Your task to perform on an android device: open chrome and create a bookmark for the current page Image 0: 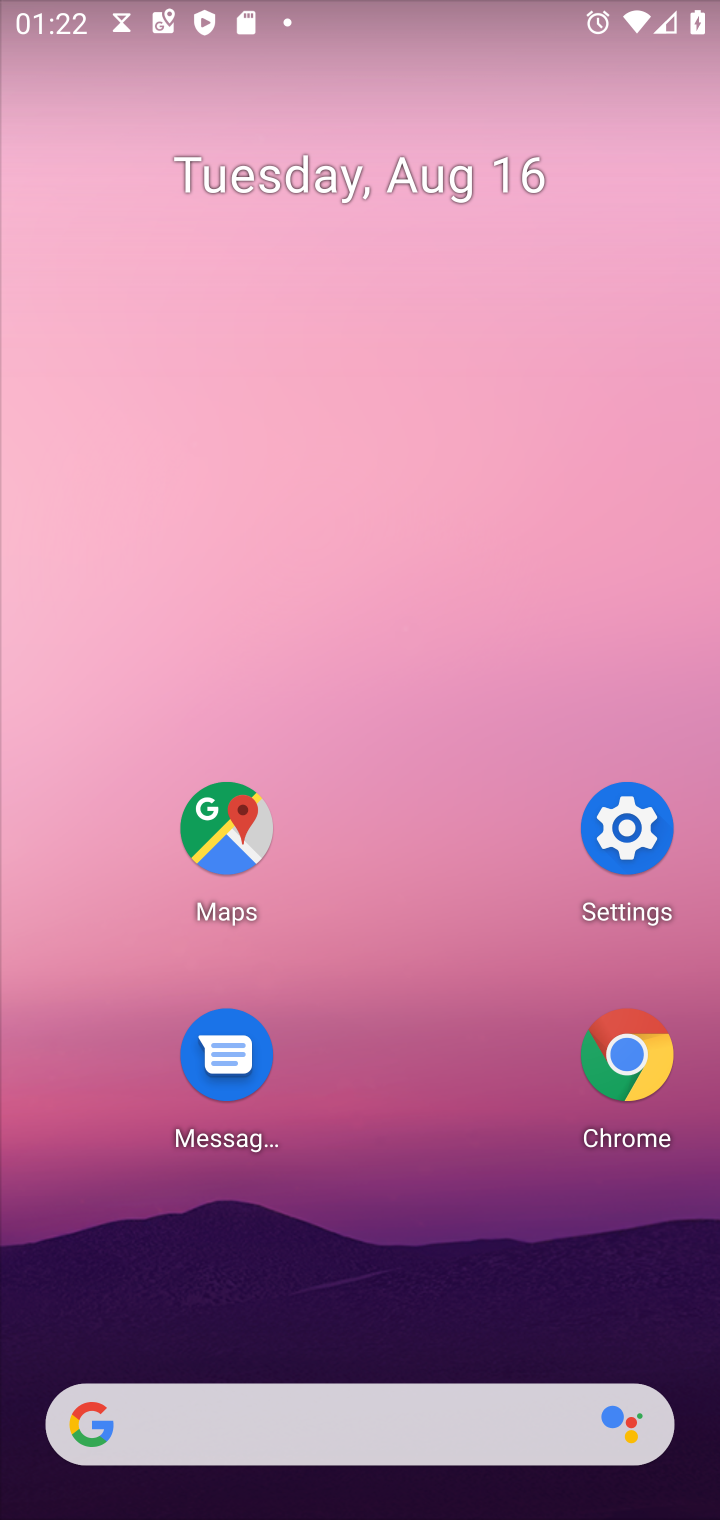
Step 0: press home button
Your task to perform on an android device: open chrome and create a bookmark for the current page Image 1: 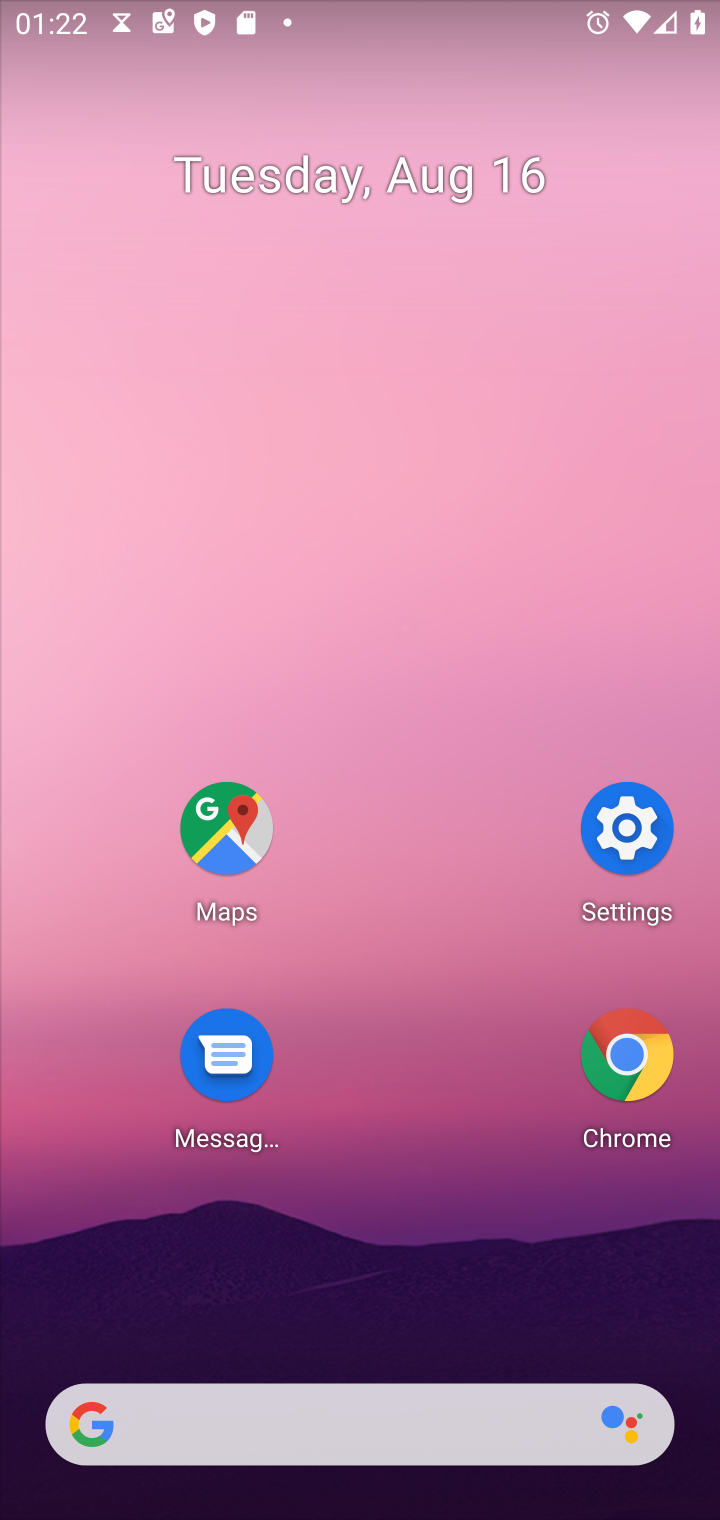
Step 1: click (637, 1073)
Your task to perform on an android device: open chrome and create a bookmark for the current page Image 2: 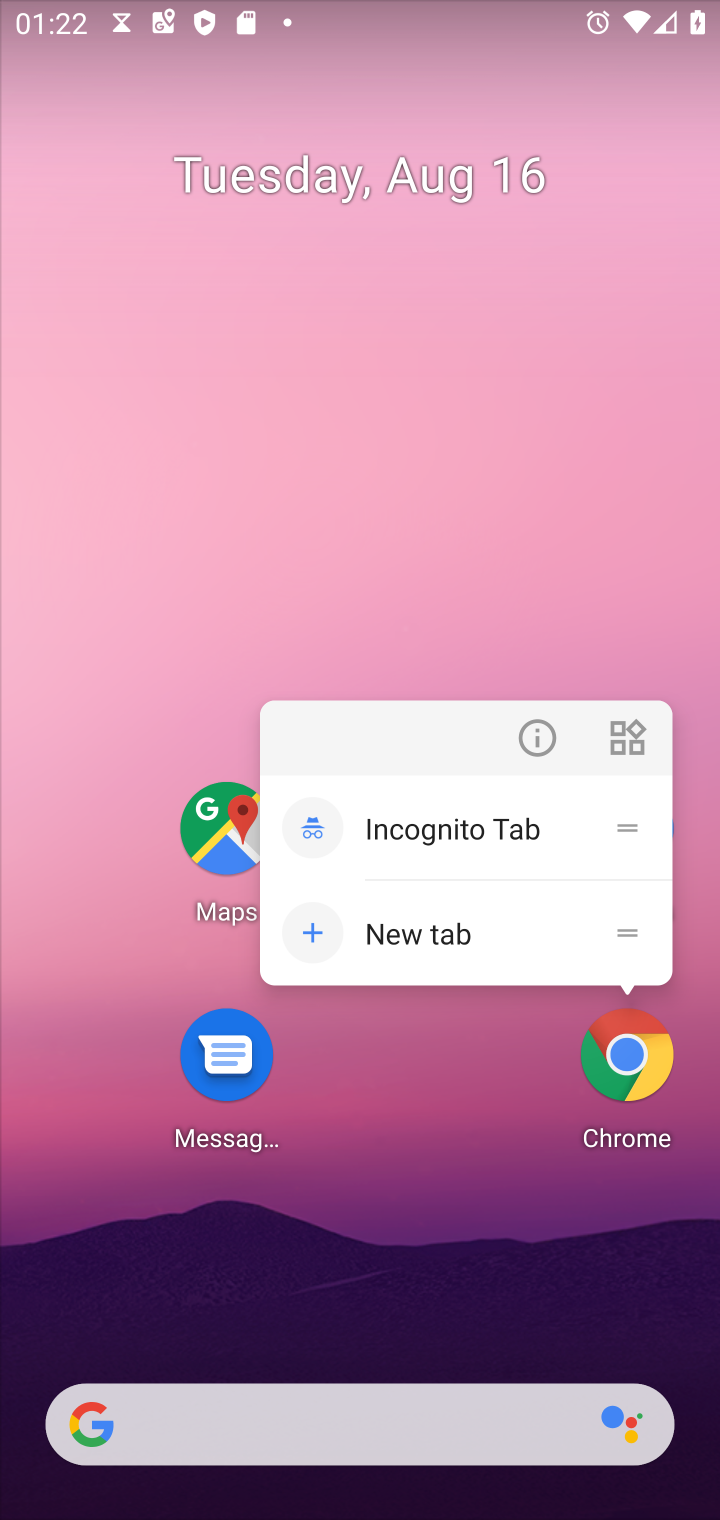
Step 2: click (612, 1069)
Your task to perform on an android device: open chrome and create a bookmark for the current page Image 3: 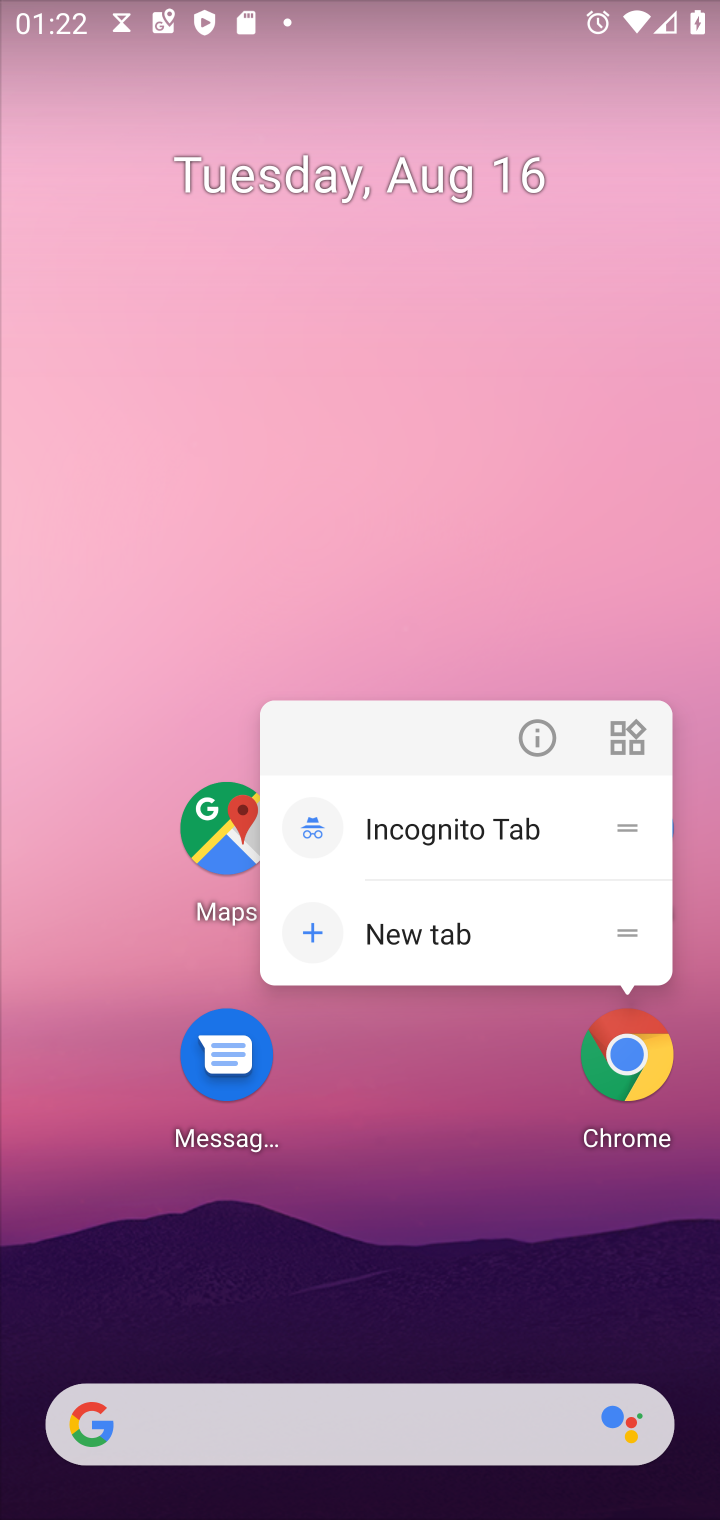
Step 3: click (643, 1074)
Your task to perform on an android device: open chrome and create a bookmark for the current page Image 4: 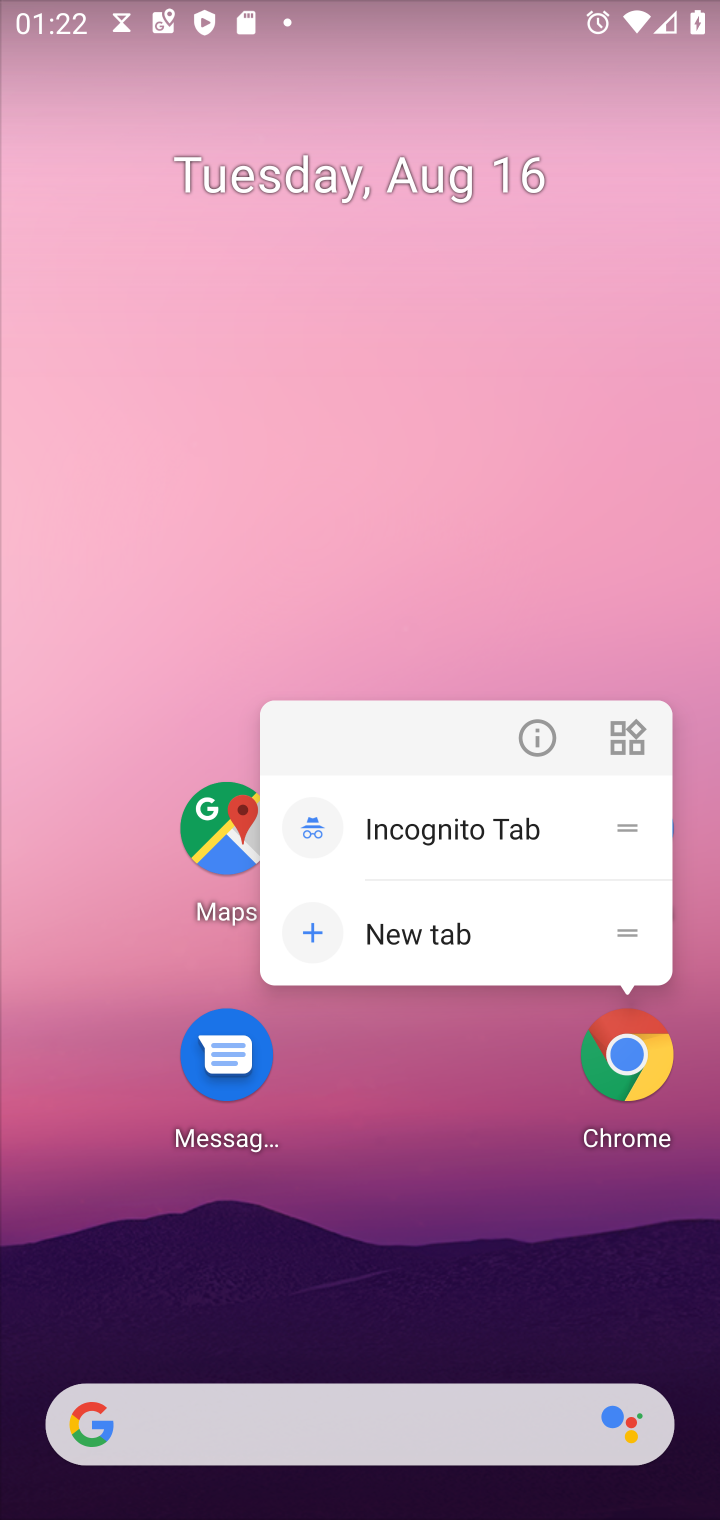
Step 4: click (629, 1059)
Your task to perform on an android device: open chrome and create a bookmark for the current page Image 5: 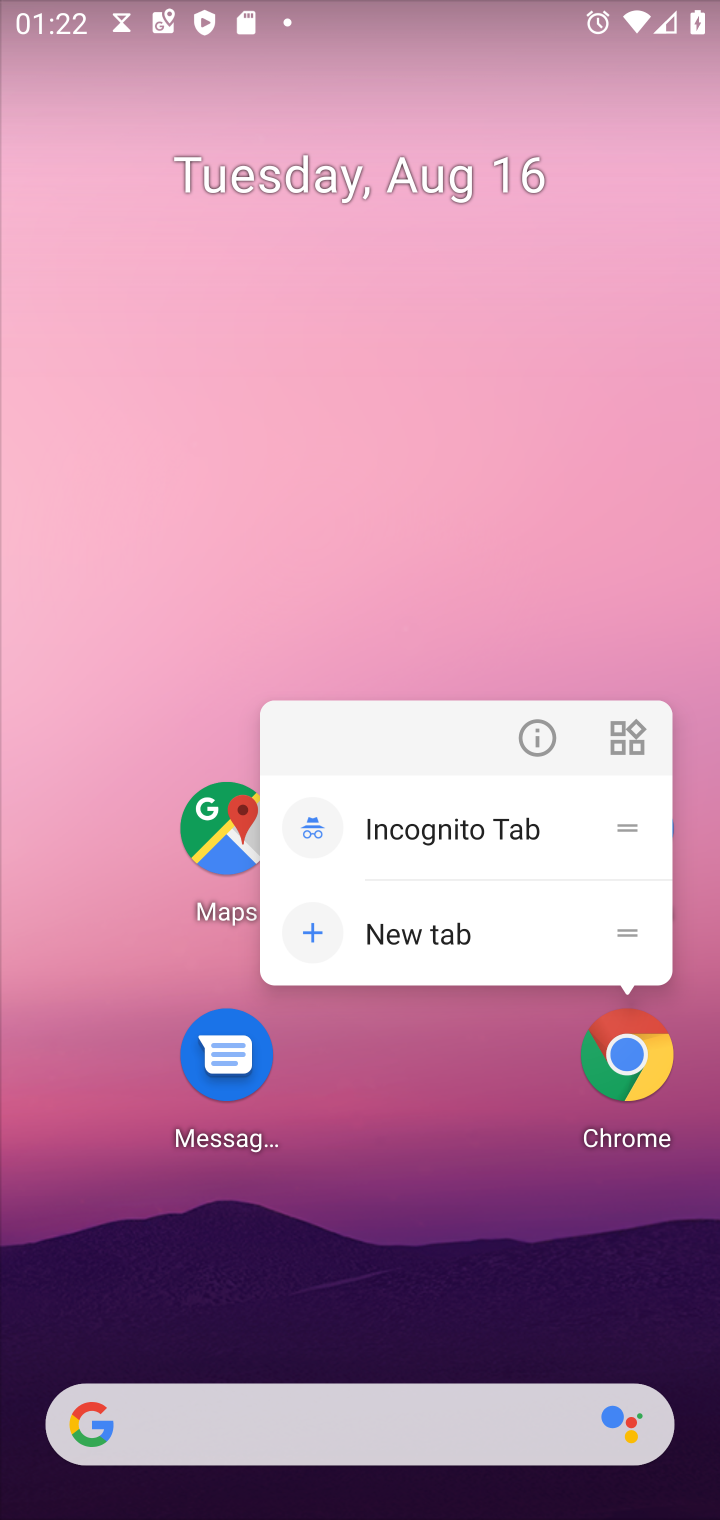
Step 5: click (629, 1064)
Your task to perform on an android device: open chrome and create a bookmark for the current page Image 6: 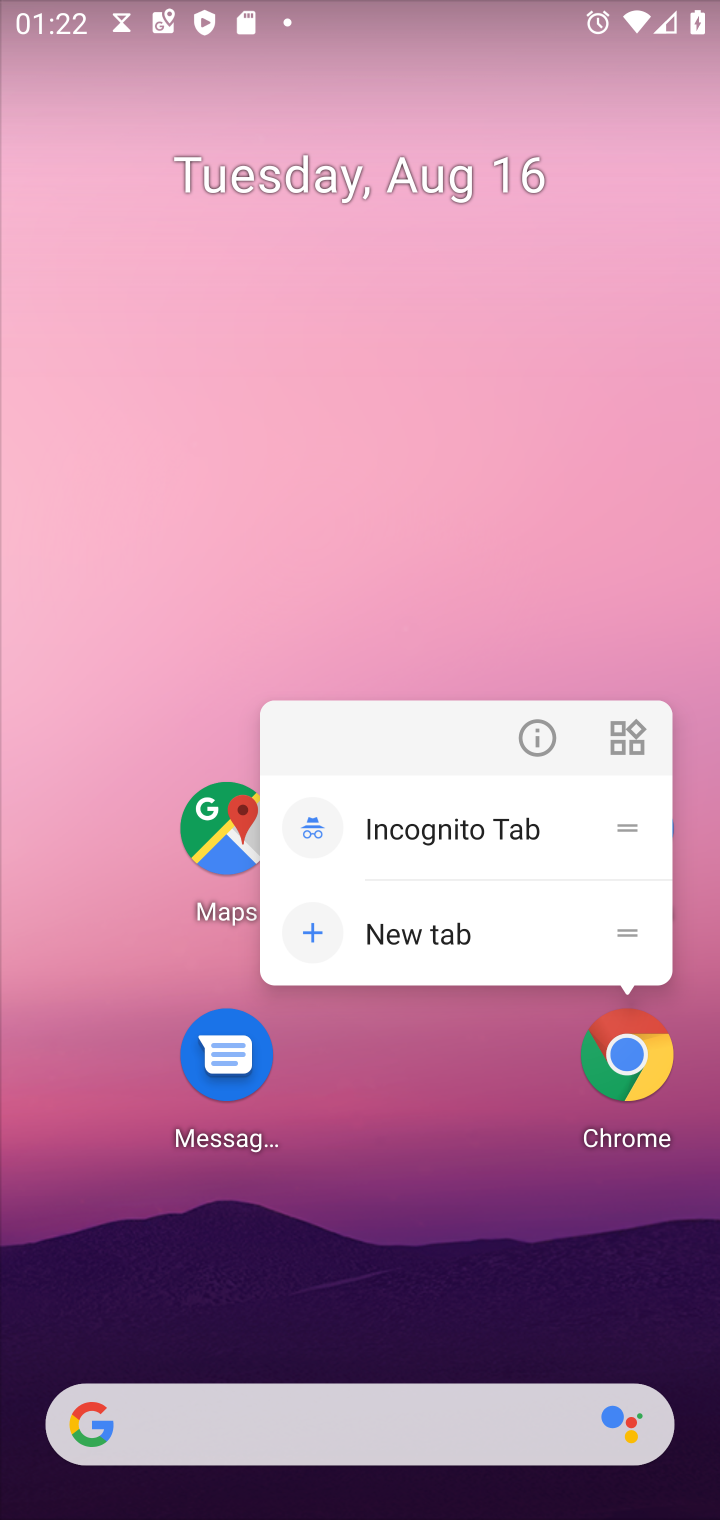
Step 6: click (629, 1064)
Your task to perform on an android device: open chrome and create a bookmark for the current page Image 7: 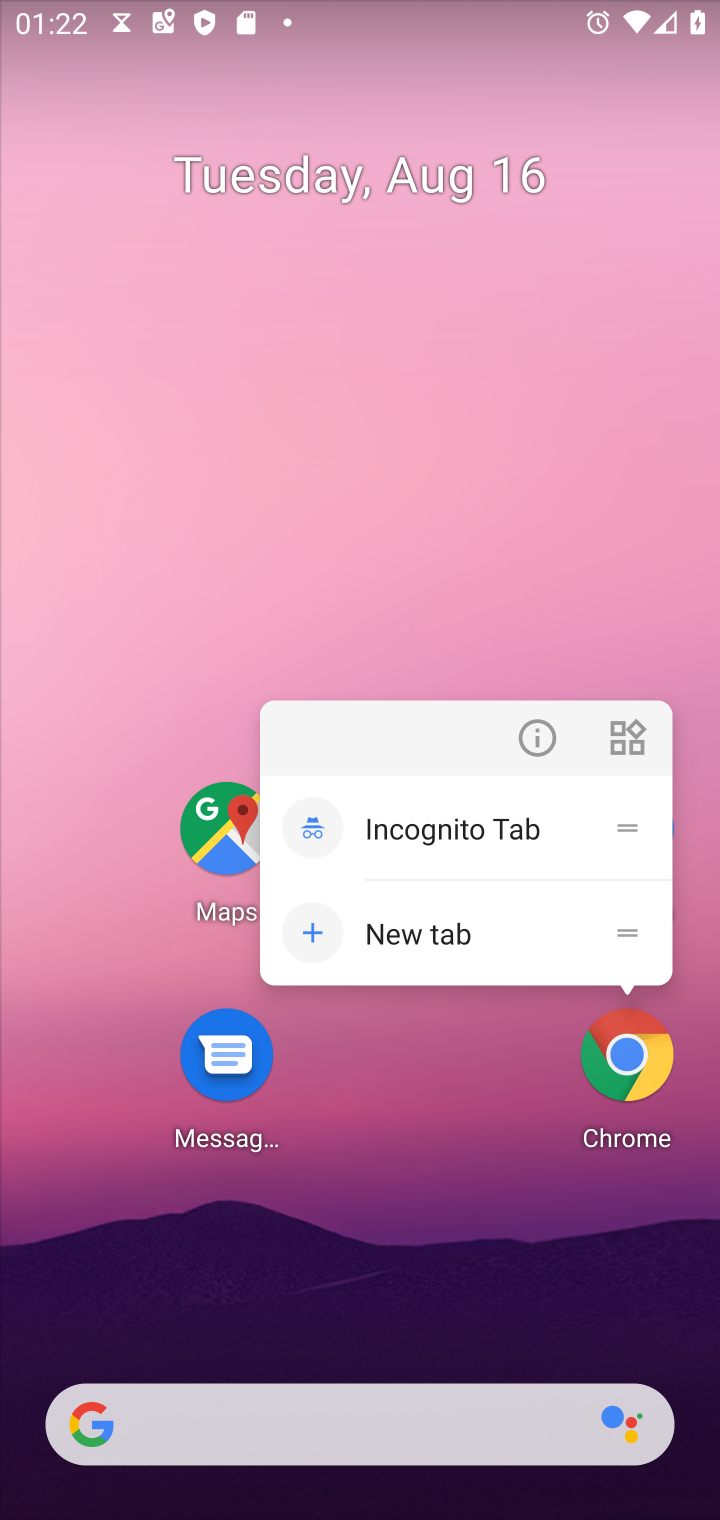
Step 7: click (629, 1064)
Your task to perform on an android device: open chrome and create a bookmark for the current page Image 8: 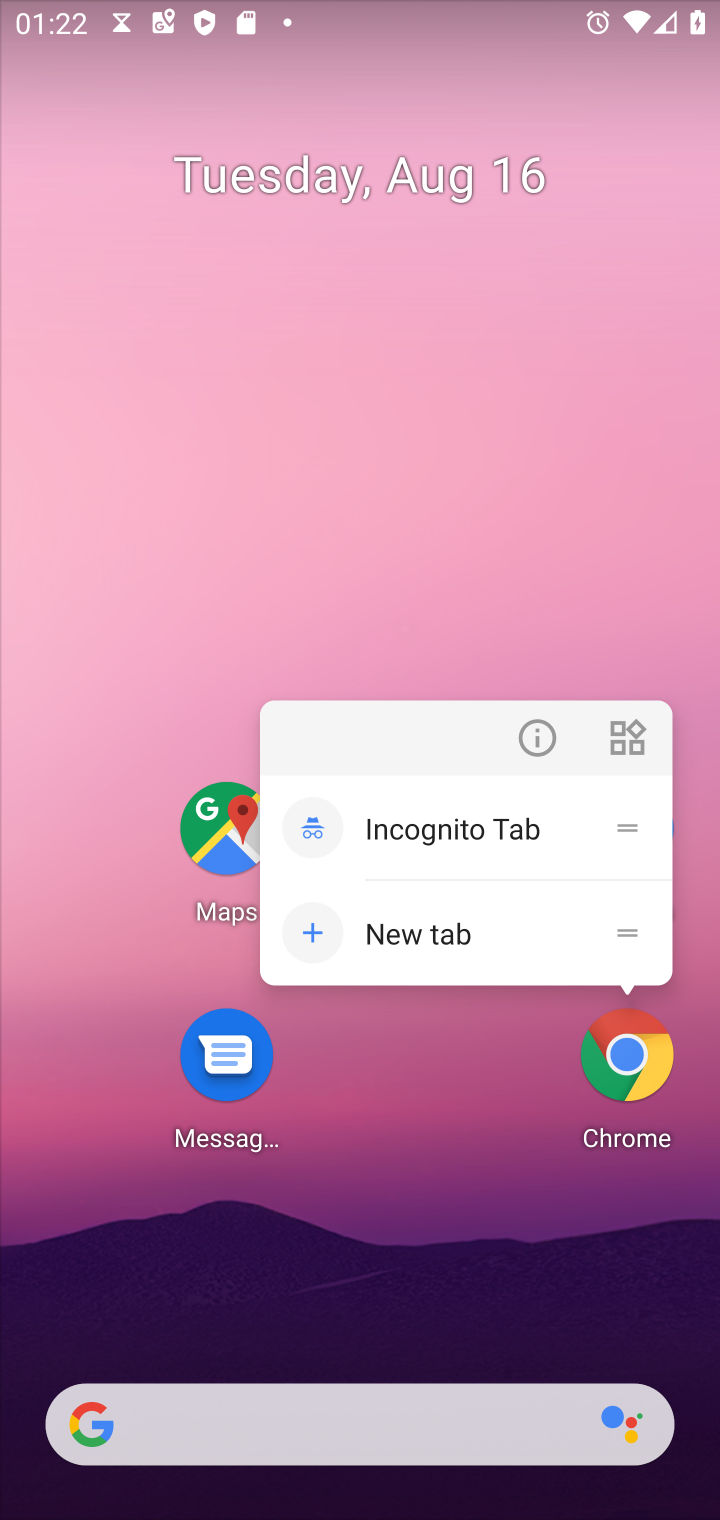
Step 8: click (629, 1074)
Your task to perform on an android device: open chrome and create a bookmark for the current page Image 9: 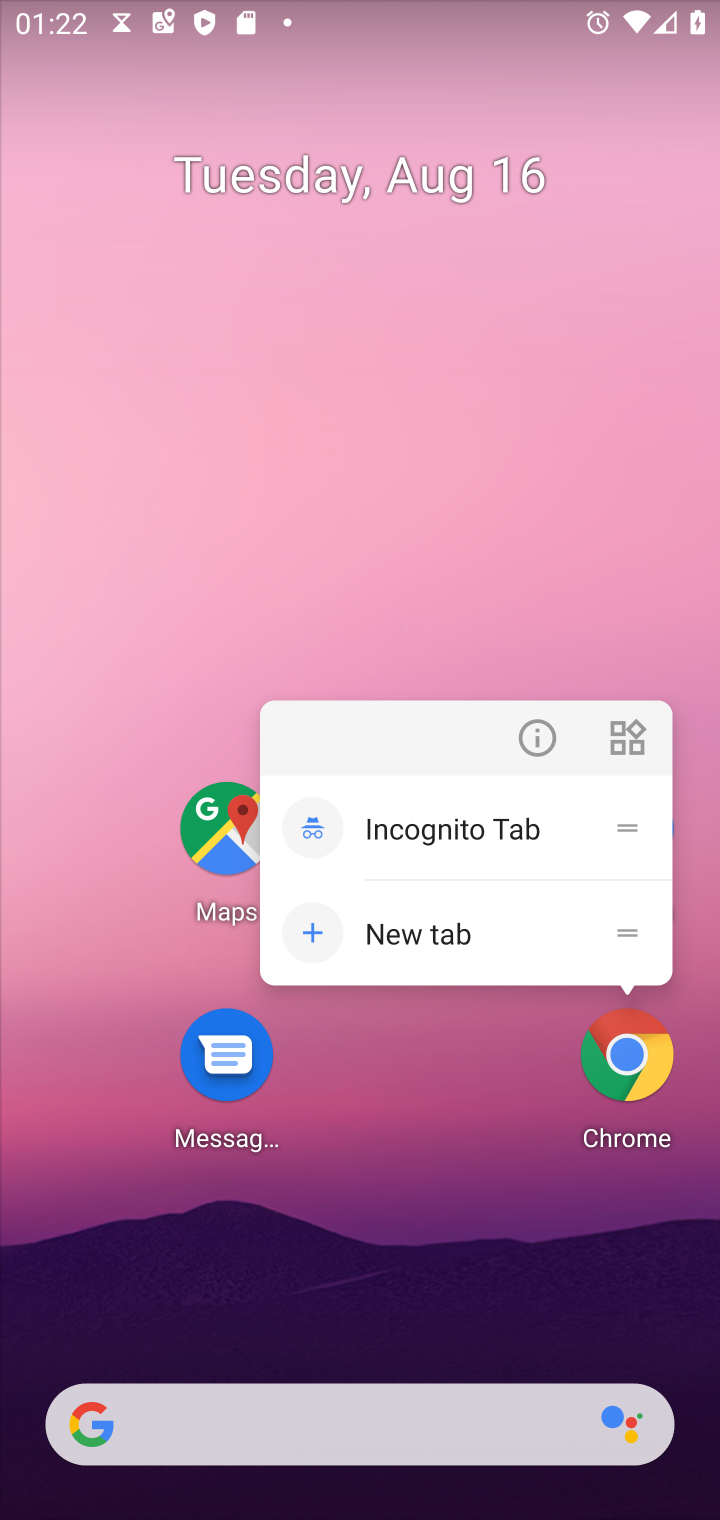
Step 9: click (629, 1081)
Your task to perform on an android device: open chrome and create a bookmark for the current page Image 10: 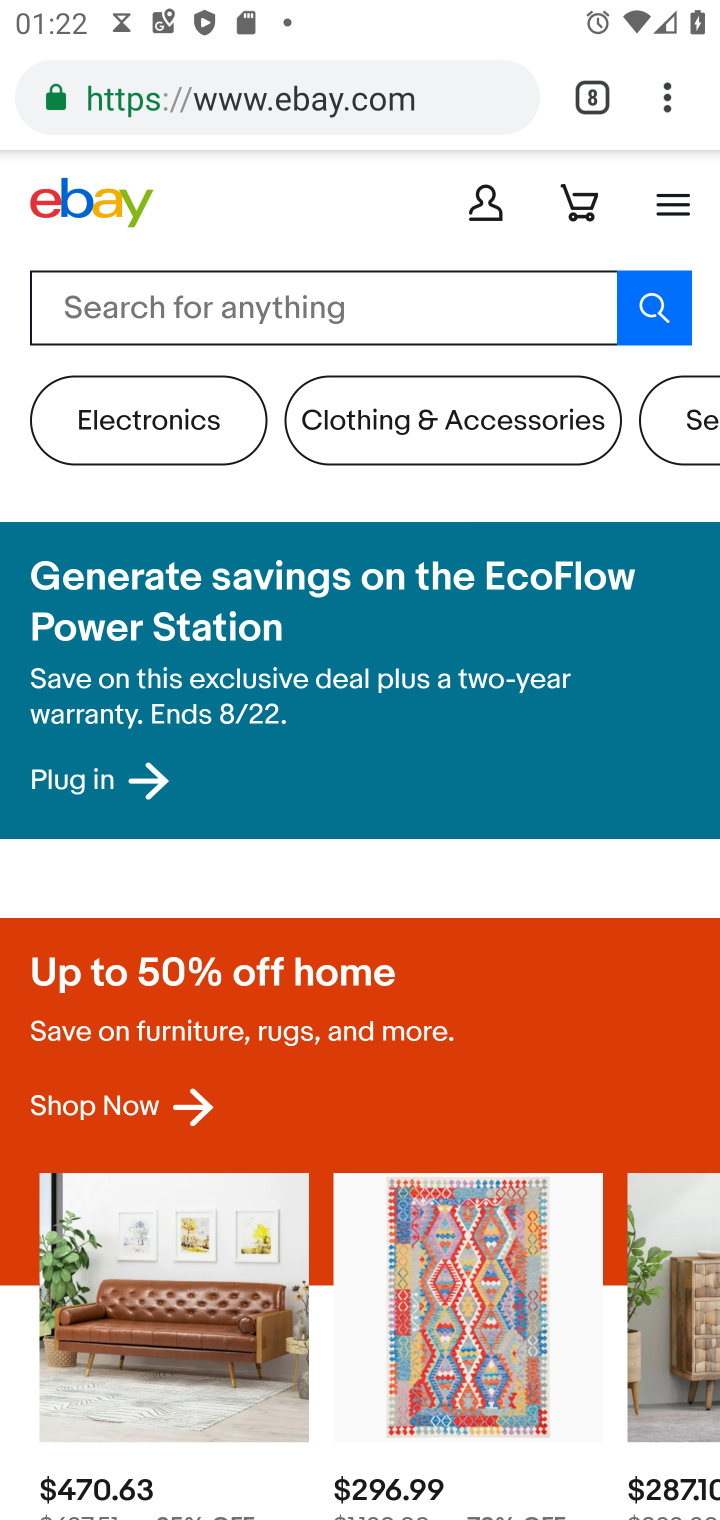
Step 10: click (666, 136)
Your task to perform on an android device: open chrome and create a bookmark for the current page Image 11: 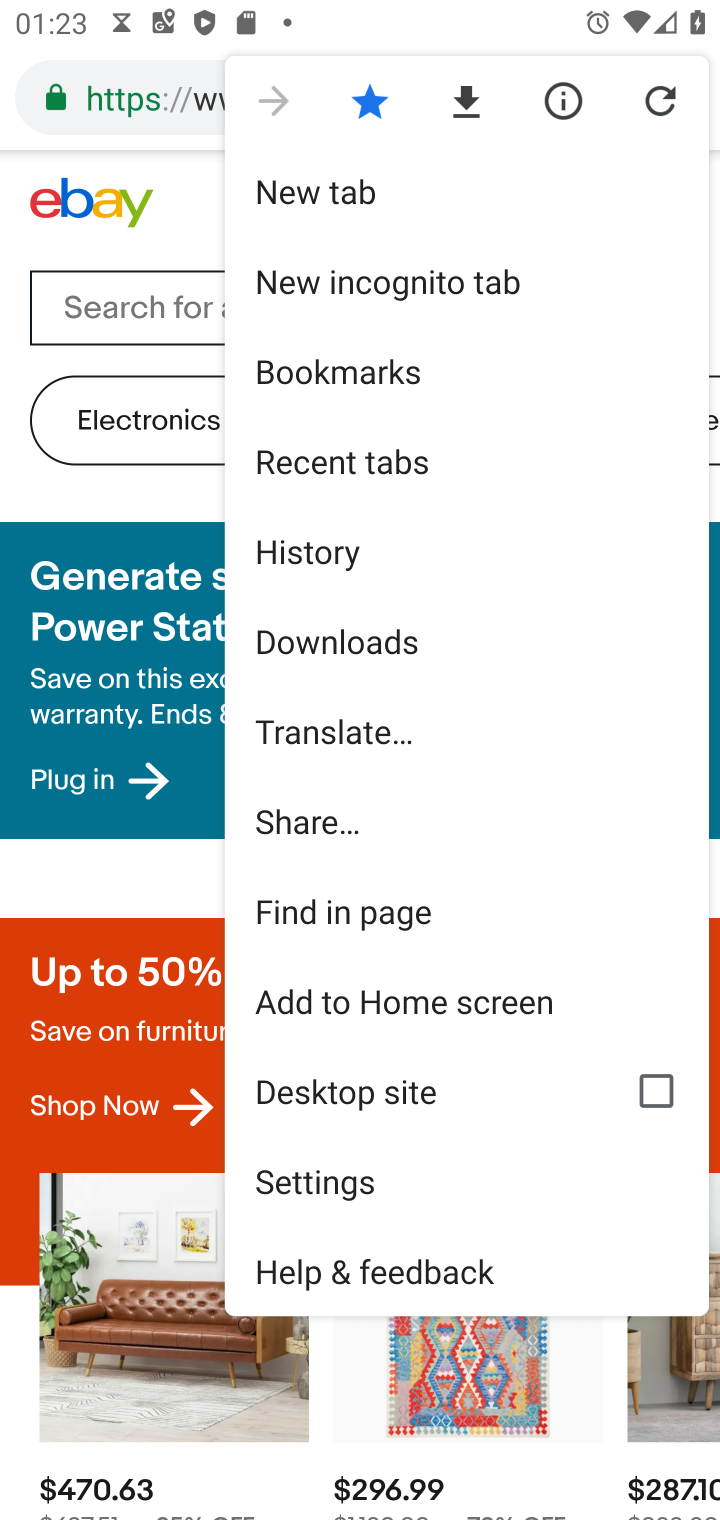
Step 11: task complete